Your task to perform on an android device: turn off picture-in-picture Image 0: 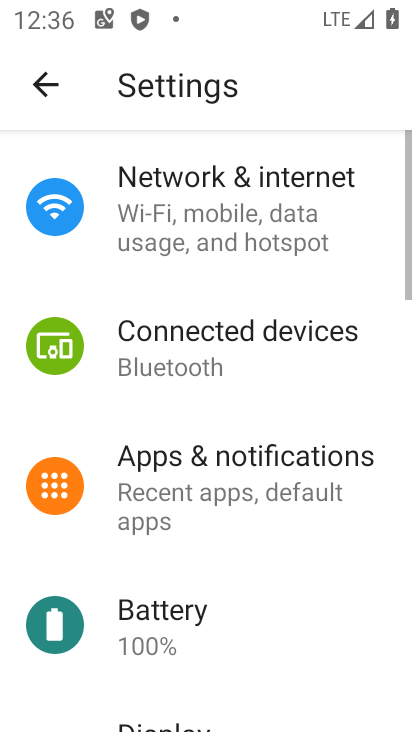
Step 0: press home button
Your task to perform on an android device: turn off picture-in-picture Image 1: 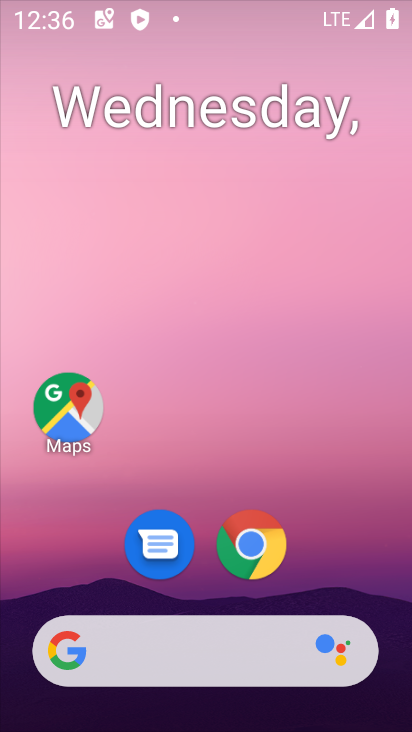
Step 1: drag from (384, 608) to (301, 47)
Your task to perform on an android device: turn off picture-in-picture Image 2: 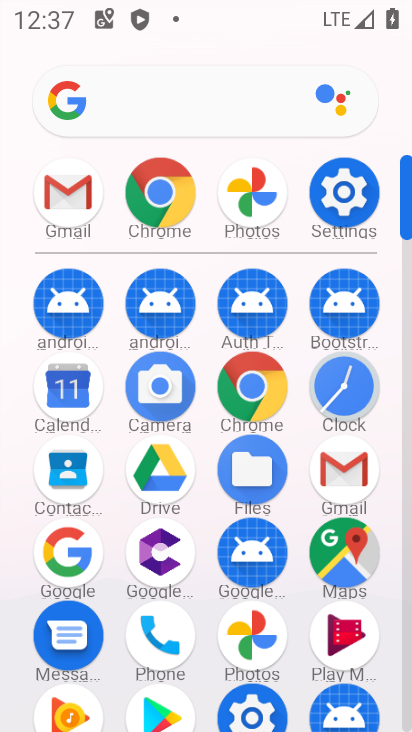
Step 2: click (164, 208)
Your task to perform on an android device: turn off picture-in-picture Image 3: 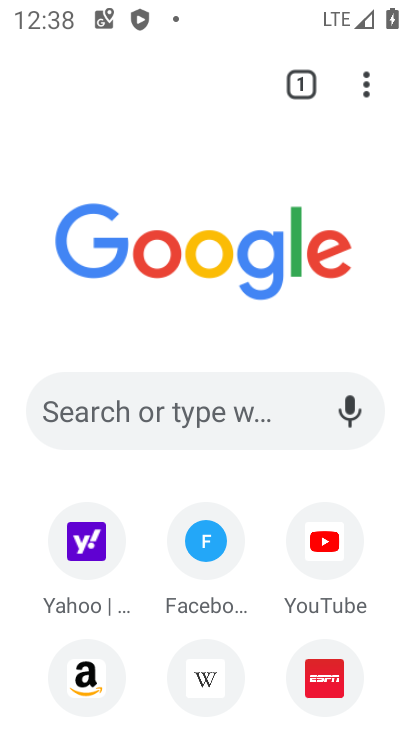
Step 3: task complete